Your task to perform on an android device: Check the news Image 0: 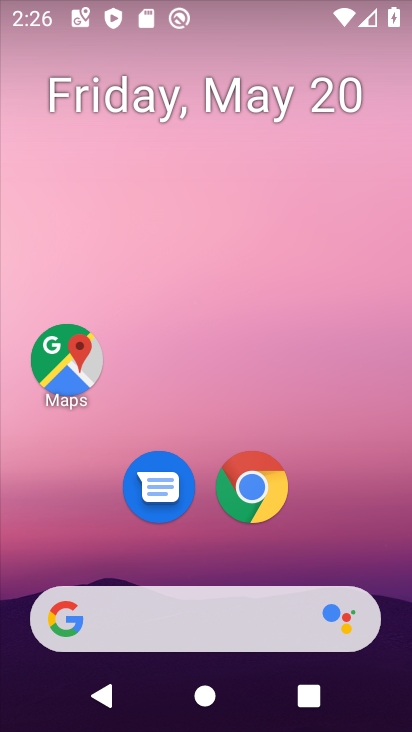
Step 0: click (272, 478)
Your task to perform on an android device: Check the news Image 1: 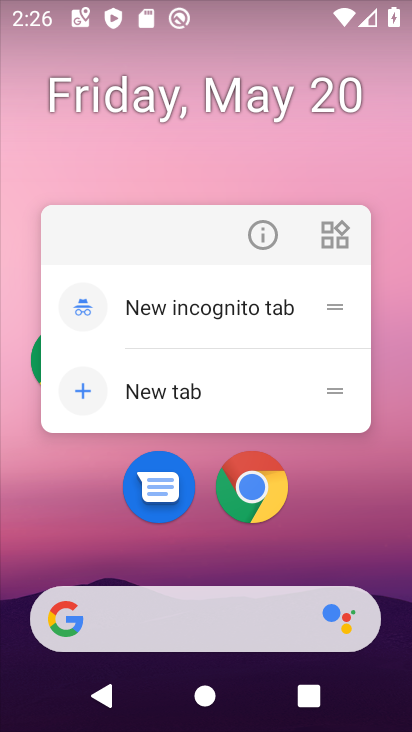
Step 1: click (251, 480)
Your task to perform on an android device: Check the news Image 2: 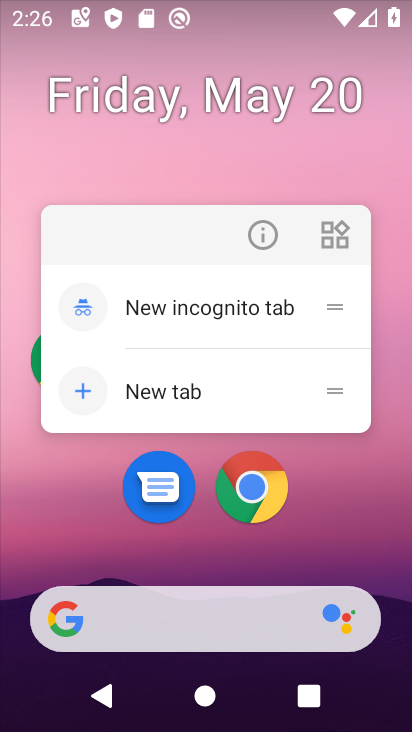
Step 2: click (251, 479)
Your task to perform on an android device: Check the news Image 3: 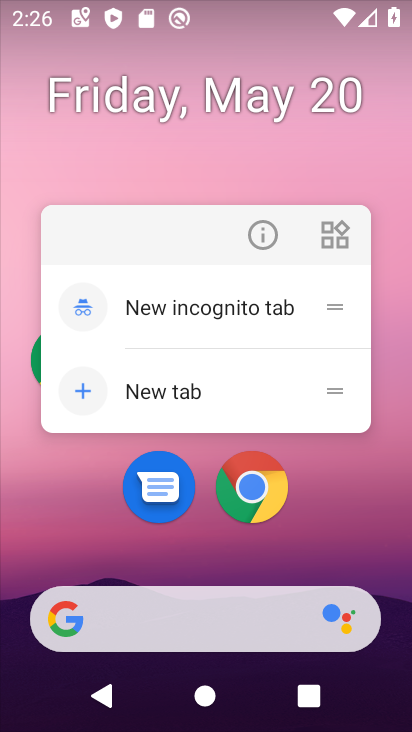
Step 3: click (251, 478)
Your task to perform on an android device: Check the news Image 4: 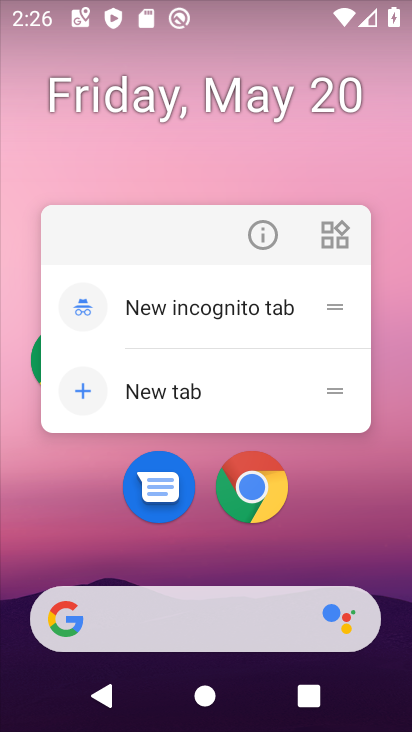
Step 4: click (250, 477)
Your task to perform on an android device: Check the news Image 5: 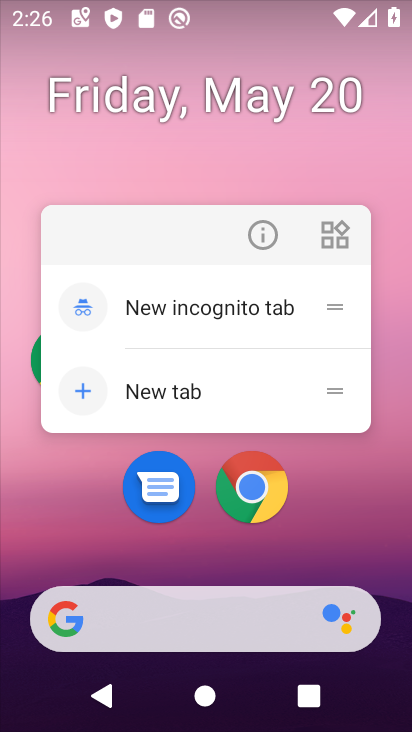
Step 5: click (266, 503)
Your task to perform on an android device: Check the news Image 6: 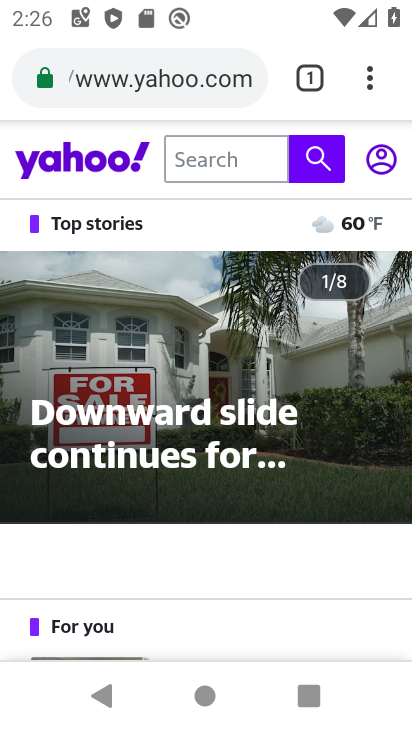
Step 6: task complete